Your task to perform on an android device: Open Google Maps Image 0: 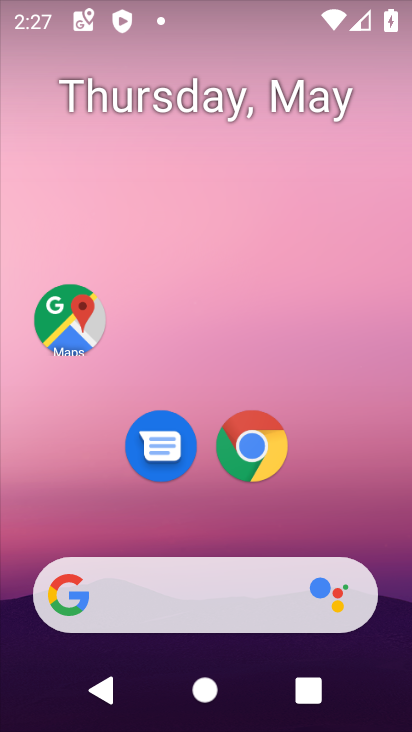
Step 0: drag from (207, 516) to (243, 1)
Your task to perform on an android device: Open Google Maps Image 1: 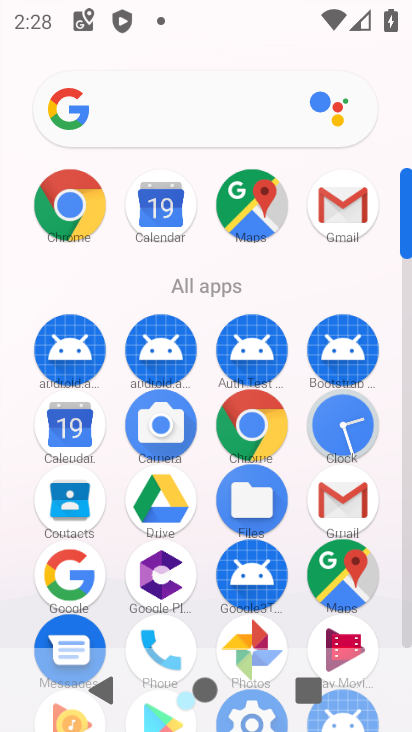
Step 1: click (247, 225)
Your task to perform on an android device: Open Google Maps Image 2: 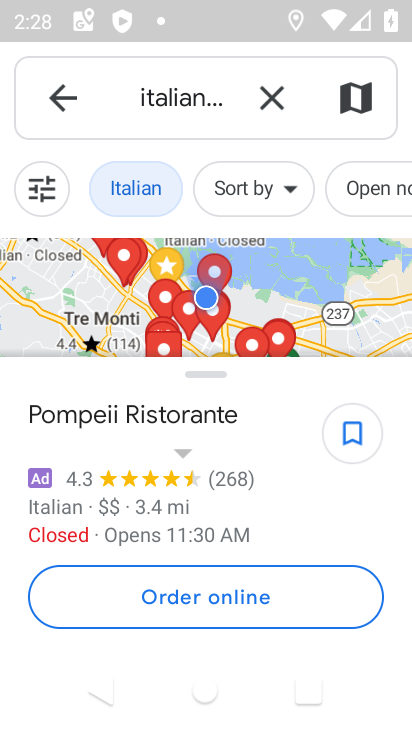
Step 2: click (56, 88)
Your task to perform on an android device: Open Google Maps Image 3: 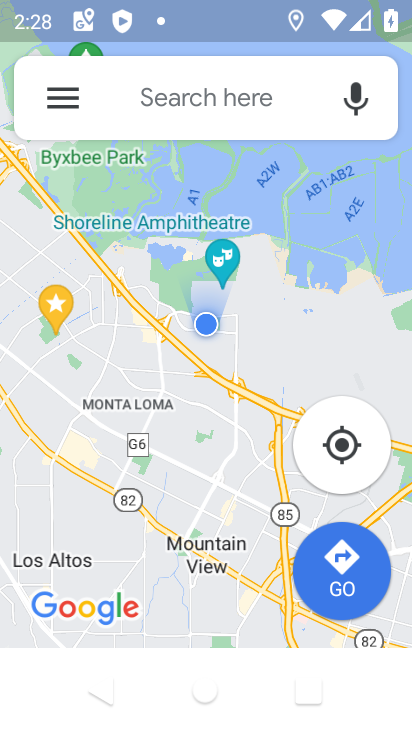
Step 3: task complete